Your task to perform on an android device: turn off data saver in the chrome app Image 0: 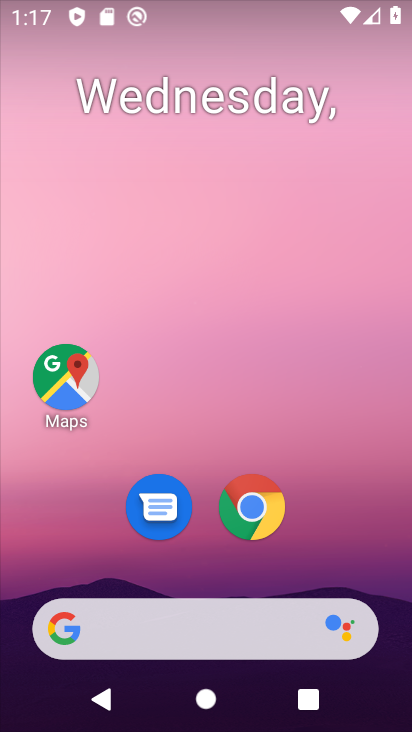
Step 0: drag from (318, 502) to (322, 166)
Your task to perform on an android device: turn off data saver in the chrome app Image 1: 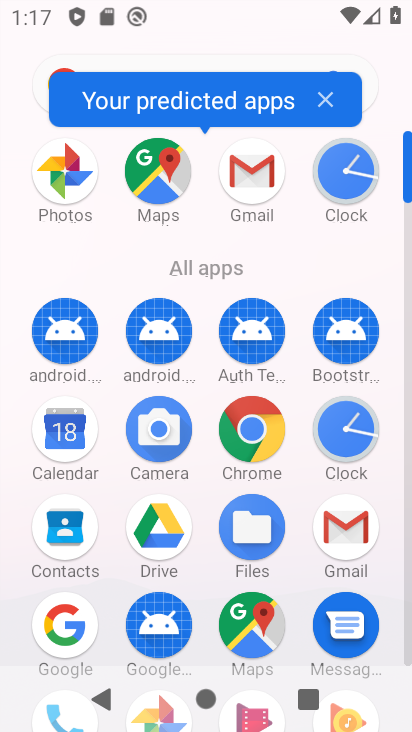
Step 1: click (250, 445)
Your task to perform on an android device: turn off data saver in the chrome app Image 2: 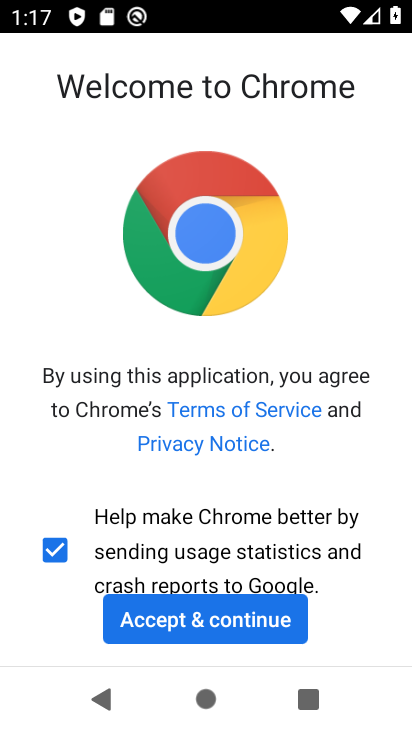
Step 2: click (234, 615)
Your task to perform on an android device: turn off data saver in the chrome app Image 3: 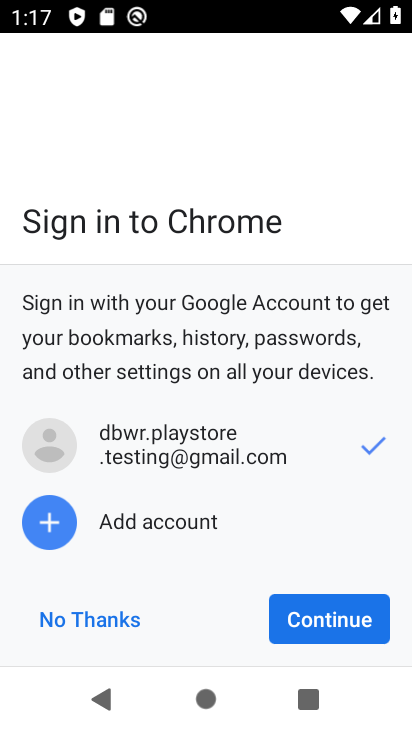
Step 3: click (292, 616)
Your task to perform on an android device: turn off data saver in the chrome app Image 4: 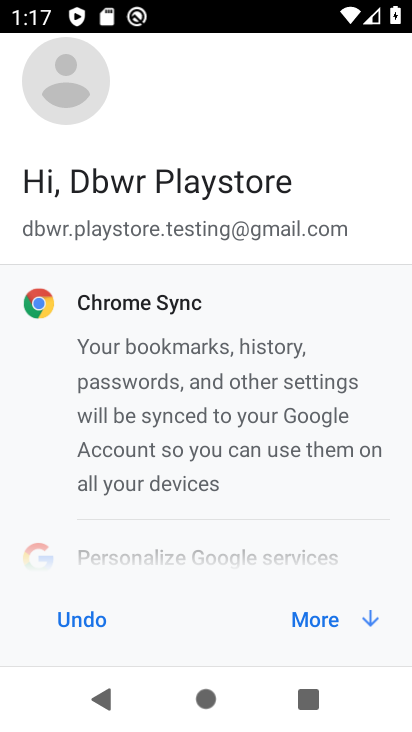
Step 4: click (292, 616)
Your task to perform on an android device: turn off data saver in the chrome app Image 5: 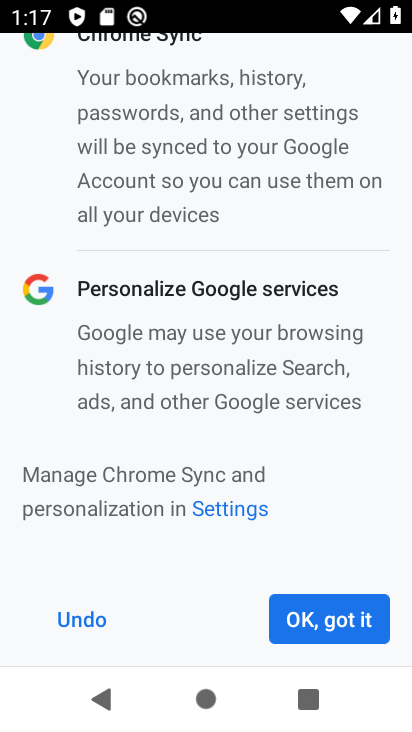
Step 5: click (292, 616)
Your task to perform on an android device: turn off data saver in the chrome app Image 6: 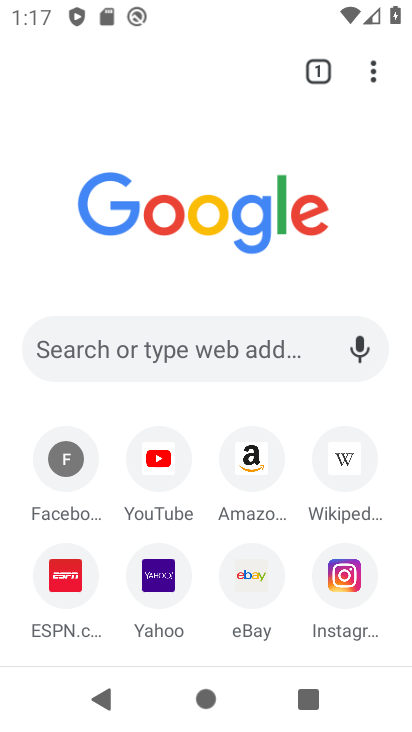
Step 6: drag from (373, 85) to (193, 509)
Your task to perform on an android device: turn off data saver in the chrome app Image 7: 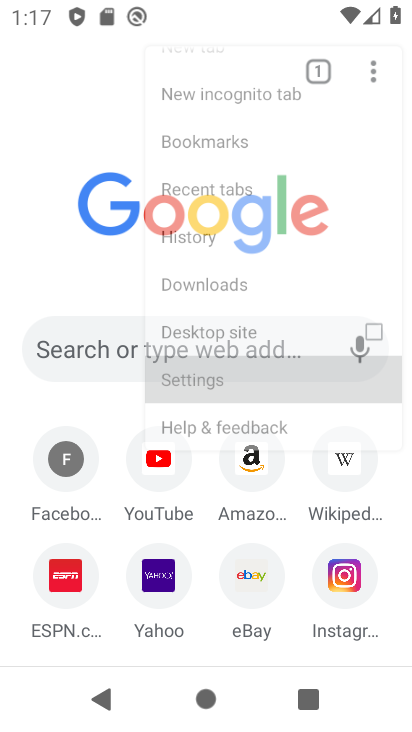
Step 7: click (196, 506)
Your task to perform on an android device: turn off data saver in the chrome app Image 8: 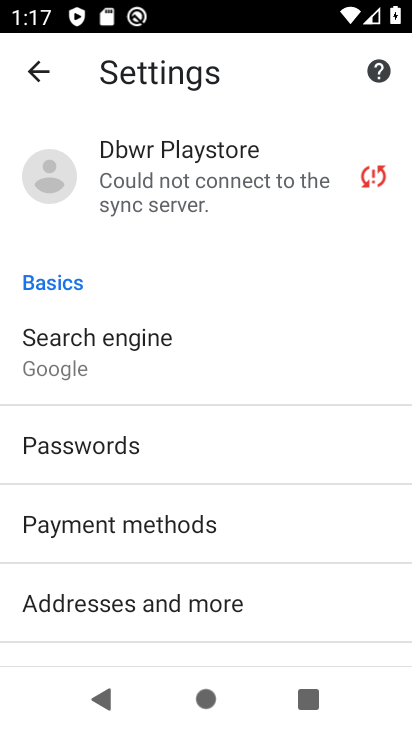
Step 8: drag from (250, 557) to (263, 320)
Your task to perform on an android device: turn off data saver in the chrome app Image 9: 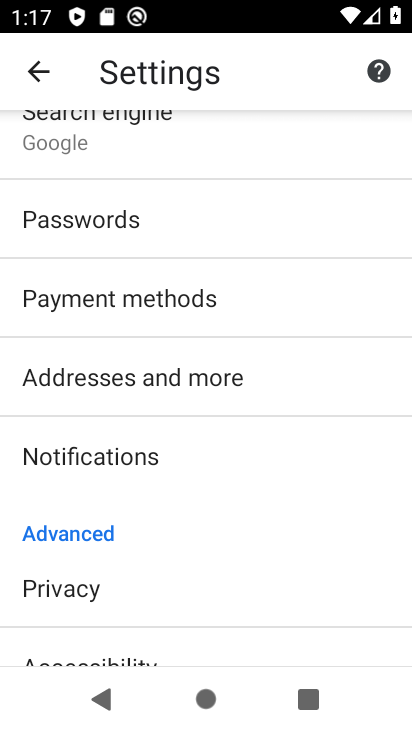
Step 9: drag from (250, 559) to (260, 412)
Your task to perform on an android device: turn off data saver in the chrome app Image 10: 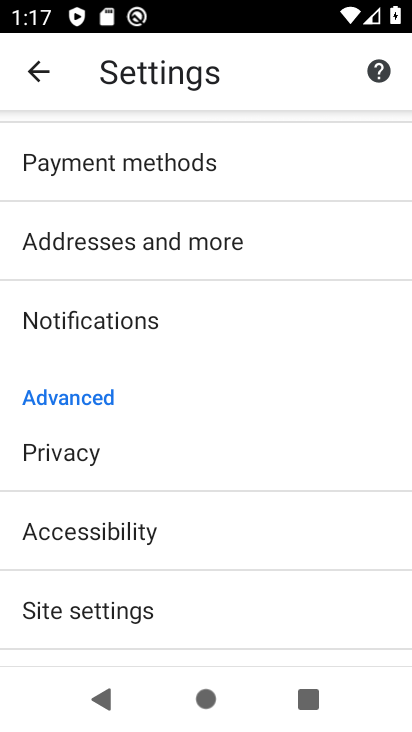
Step 10: drag from (218, 605) to (284, 276)
Your task to perform on an android device: turn off data saver in the chrome app Image 11: 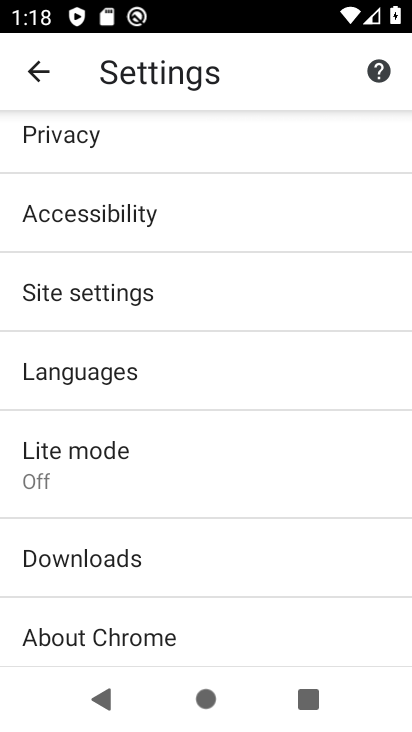
Step 11: click (156, 461)
Your task to perform on an android device: turn off data saver in the chrome app Image 12: 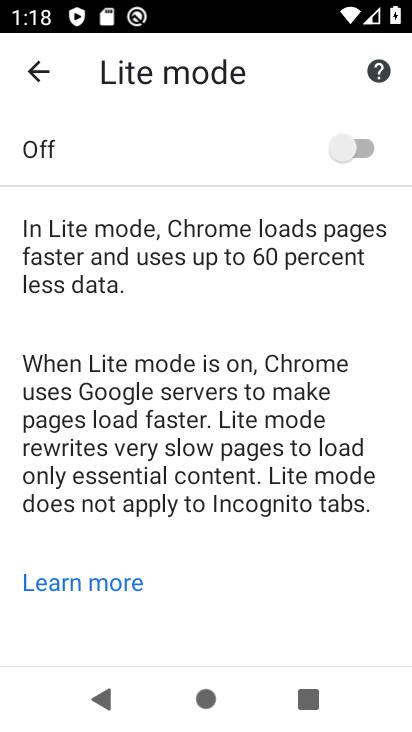
Step 12: task complete